Your task to perform on an android device: Search for Italian restaurants on Maps Image 0: 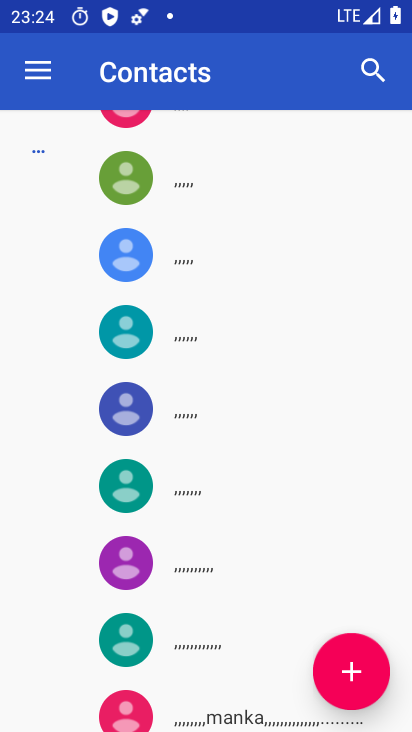
Step 0: press home button
Your task to perform on an android device: Search for Italian restaurants on Maps Image 1: 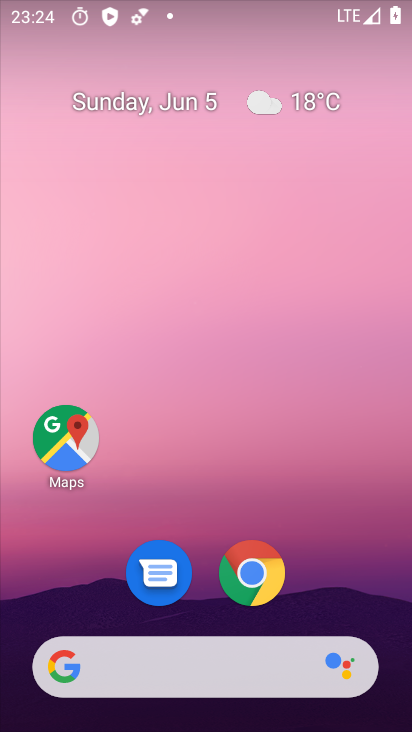
Step 1: click (55, 470)
Your task to perform on an android device: Search for Italian restaurants on Maps Image 2: 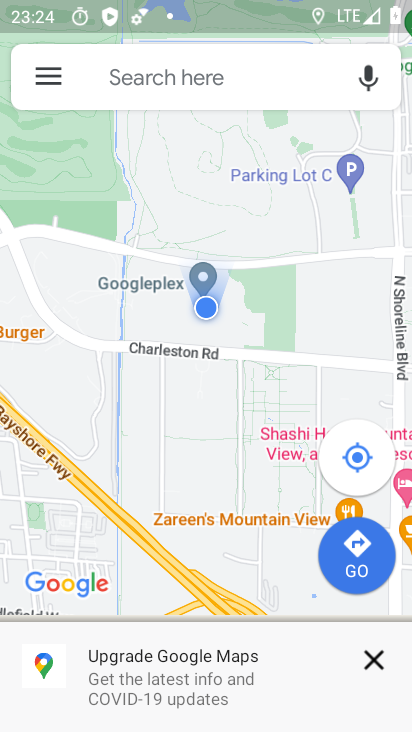
Step 2: click (224, 68)
Your task to perform on an android device: Search for Italian restaurants on Maps Image 3: 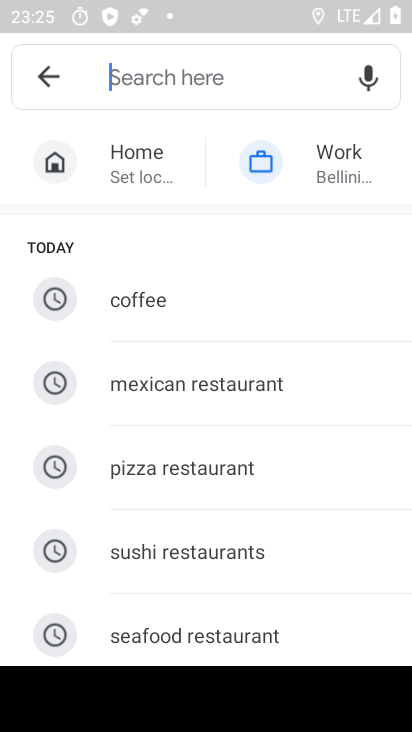
Step 3: drag from (205, 527) to (165, 142)
Your task to perform on an android device: Search for Italian restaurants on Maps Image 4: 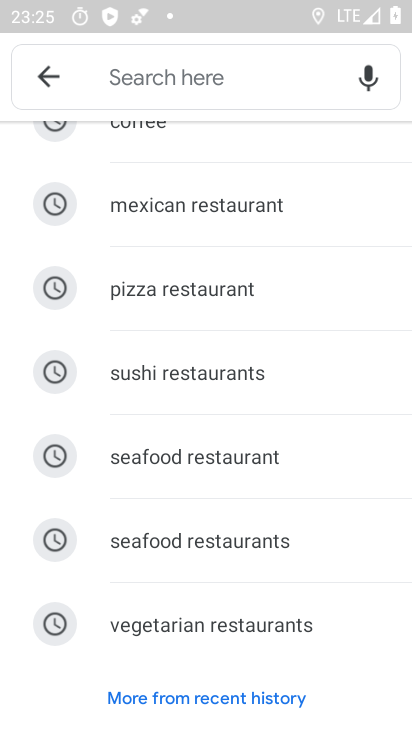
Step 4: click (213, 75)
Your task to perform on an android device: Search for Italian restaurants on Maps Image 5: 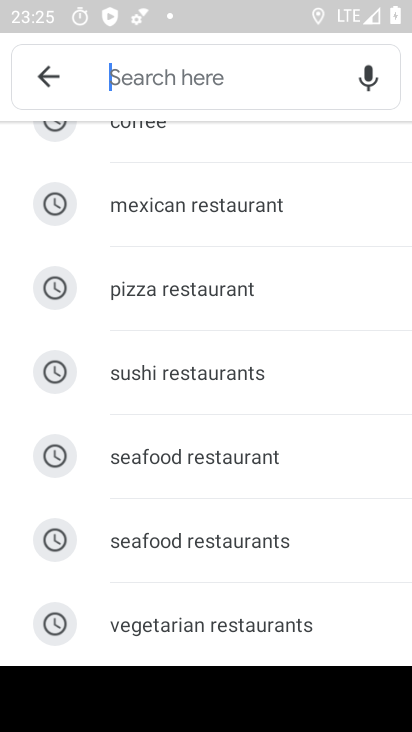
Step 5: type "italian restaurants"
Your task to perform on an android device: Search for Italian restaurants on Maps Image 6: 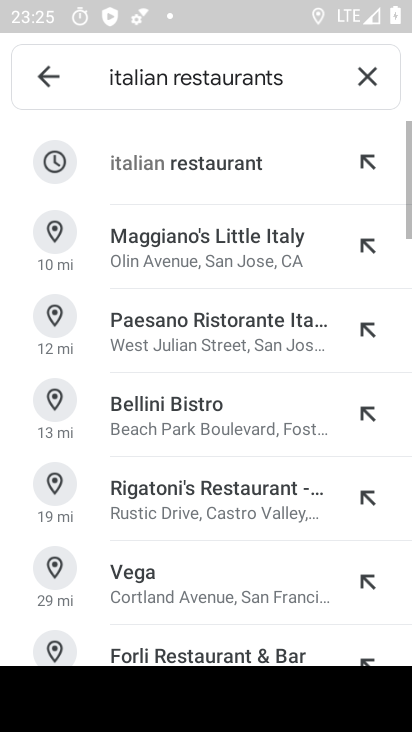
Step 6: click (208, 166)
Your task to perform on an android device: Search for Italian restaurants on Maps Image 7: 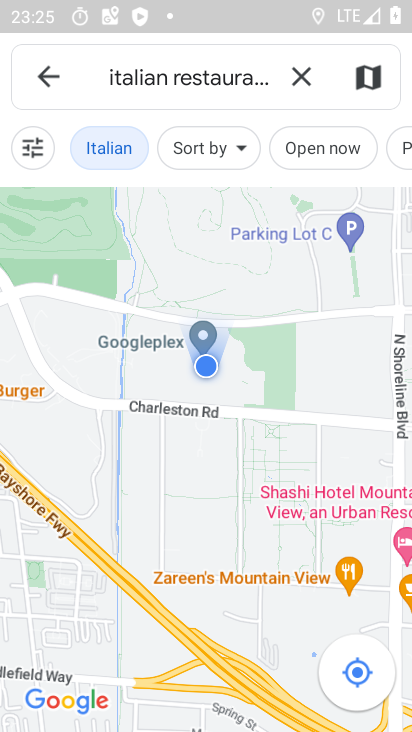
Step 7: task complete